Your task to perform on an android device: What's on my calendar tomorrow? Image 0: 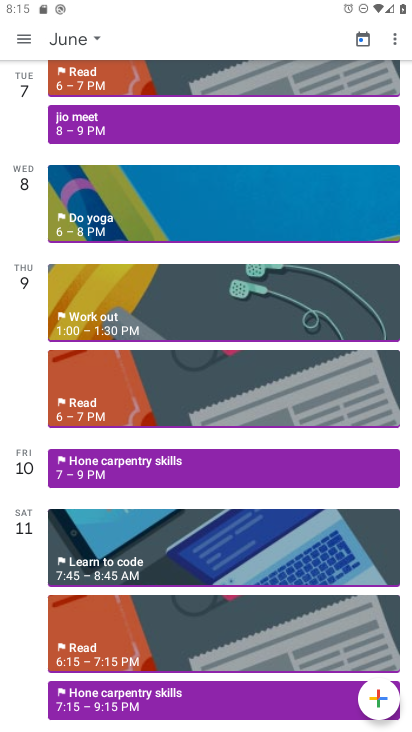
Step 0: click (64, 38)
Your task to perform on an android device: What's on my calendar tomorrow? Image 1: 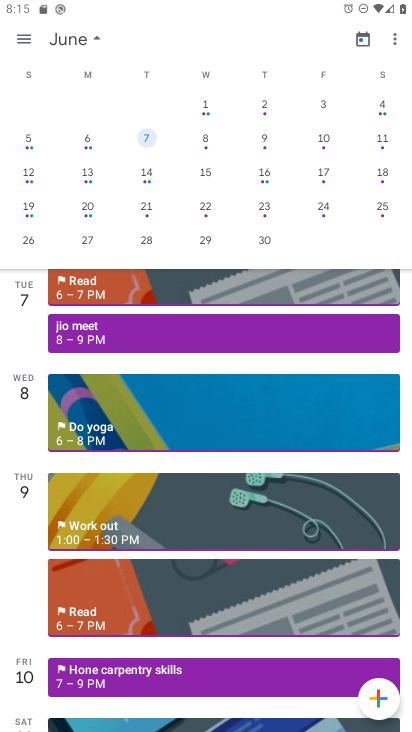
Step 1: drag from (126, 177) to (396, 214)
Your task to perform on an android device: What's on my calendar tomorrow? Image 2: 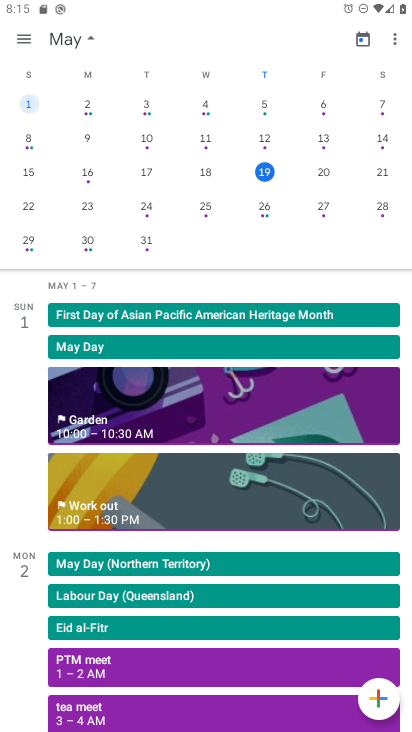
Step 2: click (325, 167)
Your task to perform on an android device: What's on my calendar tomorrow? Image 3: 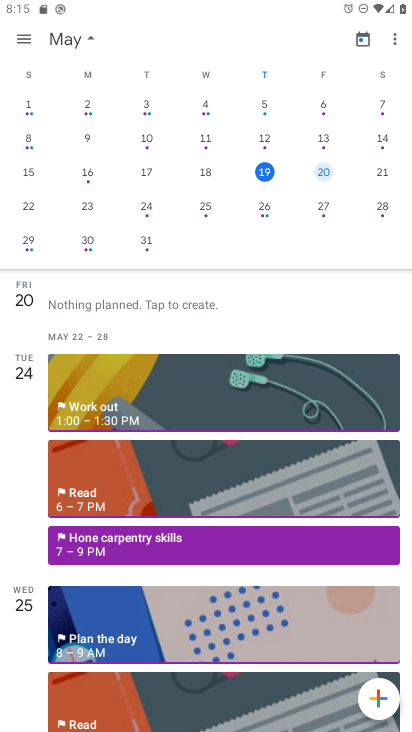
Step 3: click (141, 292)
Your task to perform on an android device: What's on my calendar tomorrow? Image 4: 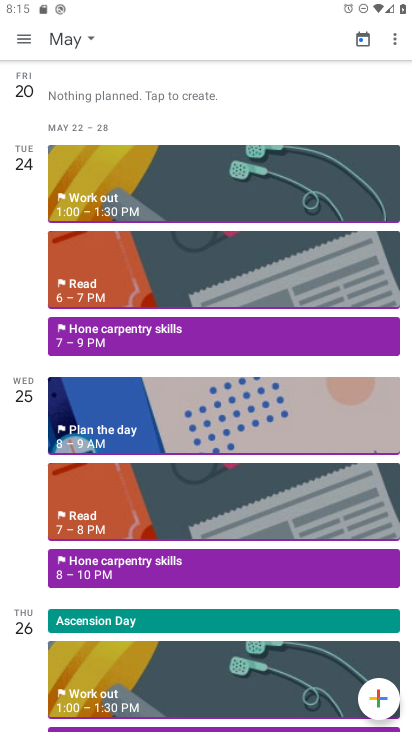
Step 4: task complete